Your task to perform on an android device: Show me productivity apps on the Play Store Image 0: 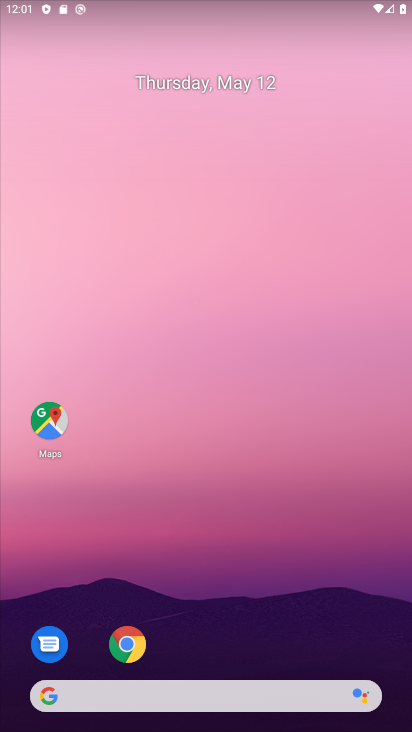
Step 0: drag from (240, 583) to (187, 101)
Your task to perform on an android device: Show me productivity apps on the Play Store Image 1: 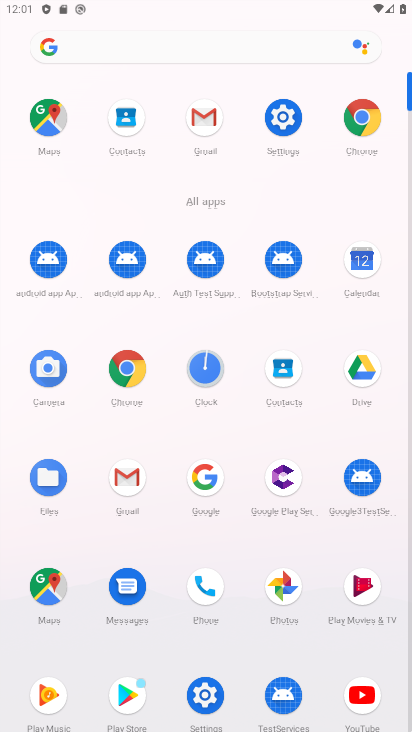
Step 1: click (122, 673)
Your task to perform on an android device: Show me productivity apps on the Play Store Image 2: 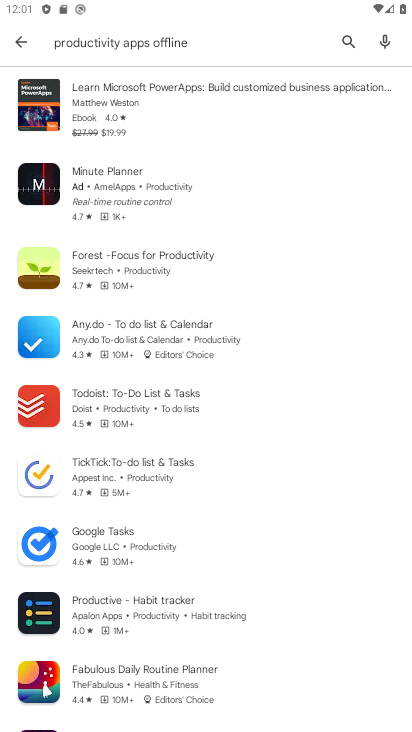
Step 2: task complete